Your task to perform on an android device: toggle sleep mode Image 0: 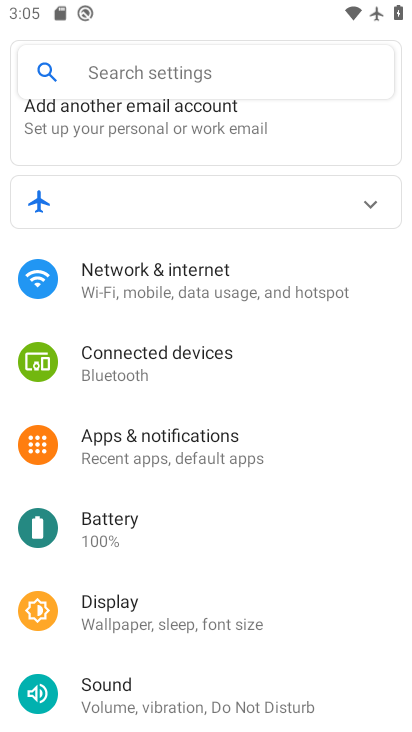
Step 0: press home button
Your task to perform on an android device: toggle sleep mode Image 1: 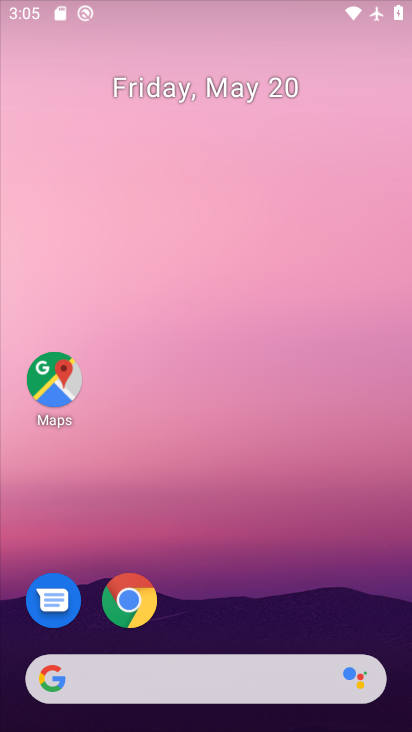
Step 1: drag from (307, 522) to (190, 24)
Your task to perform on an android device: toggle sleep mode Image 2: 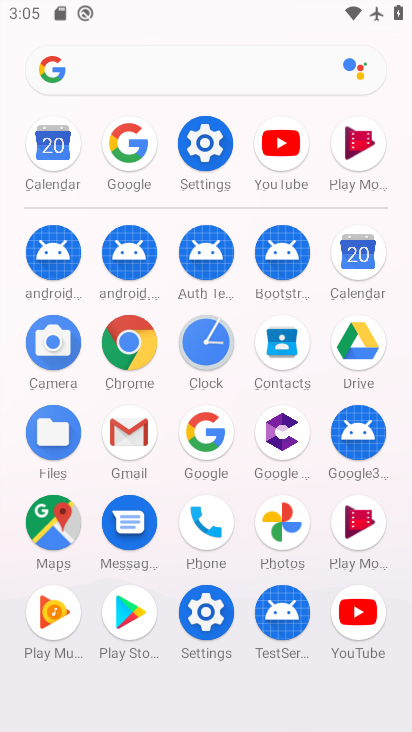
Step 2: click (209, 153)
Your task to perform on an android device: toggle sleep mode Image 3: 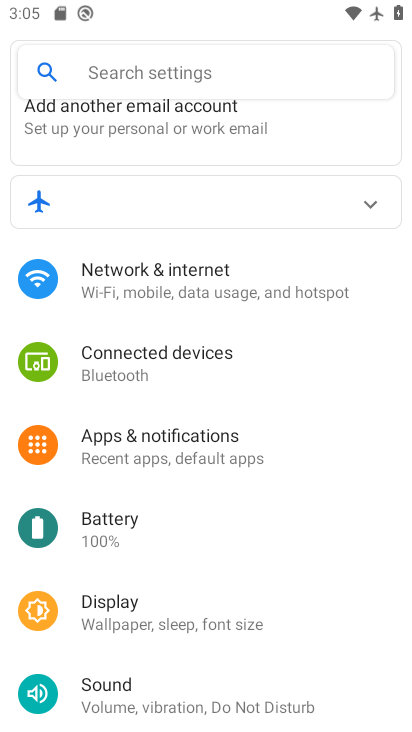
Step 3: click (214, 597)
Your task to perform on an android device: toggle sleep mode Image 4: 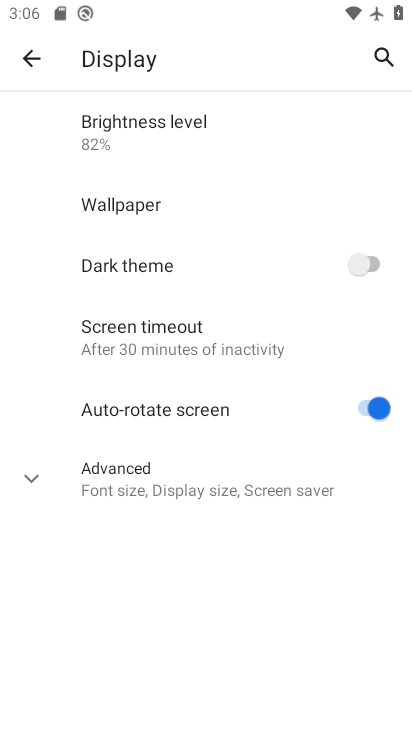
Step 4: task complete